Your task to perform on an android device: turn off sleep mode Image 0: 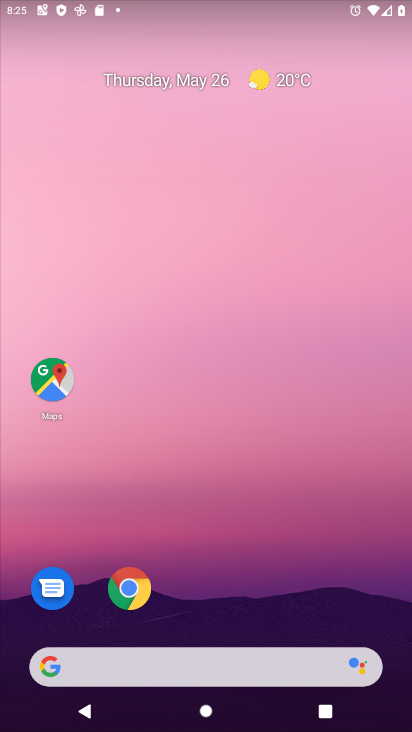
Step 0: click (323, 130)
Your task to perform on an android device: turn off sleep mode Image 1: 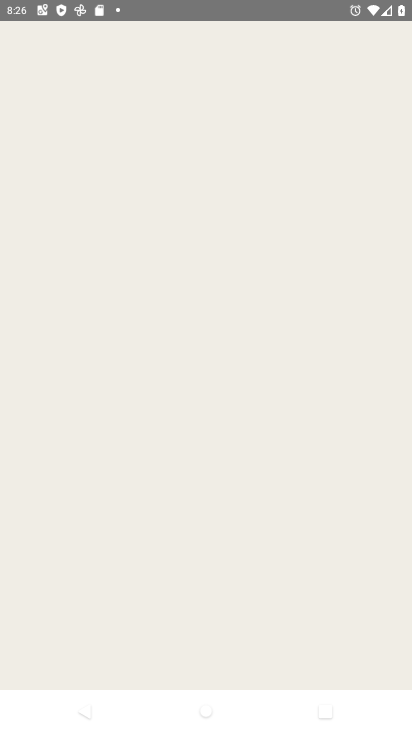
Step 1: press home button
Your task to perform on an android device: turn off sleep mode Image 2: 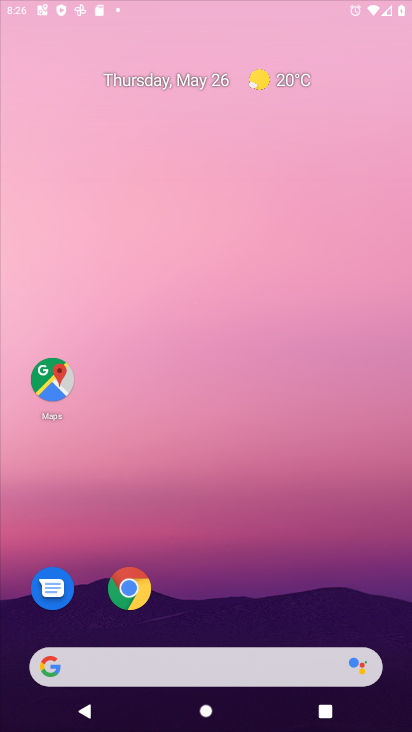
Step 2: drag from (398, 646) to (283, 165)
Your task to perform on an android device: turn off sleep mode Image 3: 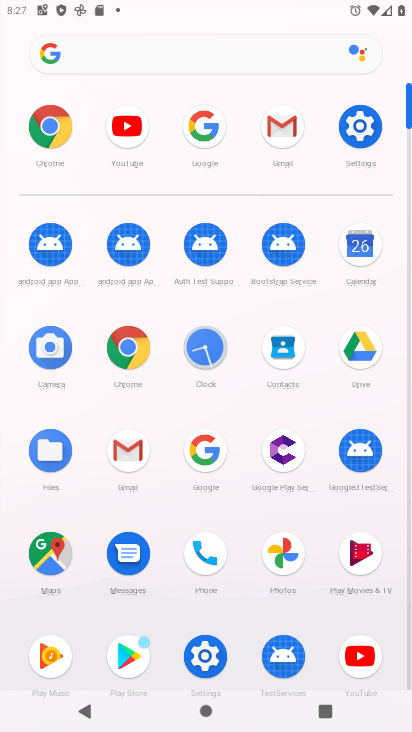
Step 3: click (208, 653)
Your task to perform on an android device: turn off sleep mode Image 4: 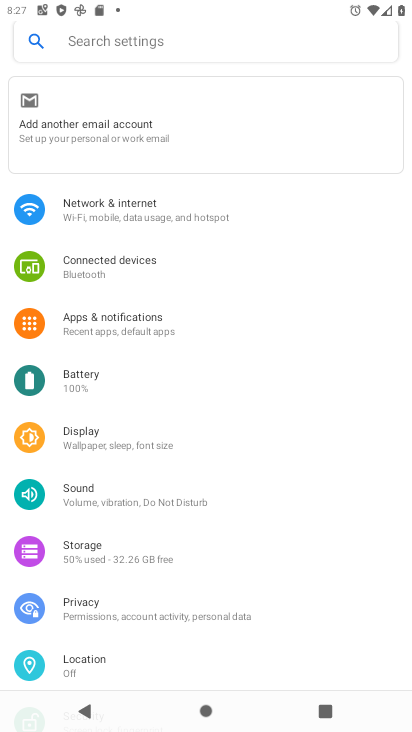
Step 4: task complete